Your task to perform on an android device: open device folders in google photos Image 0: 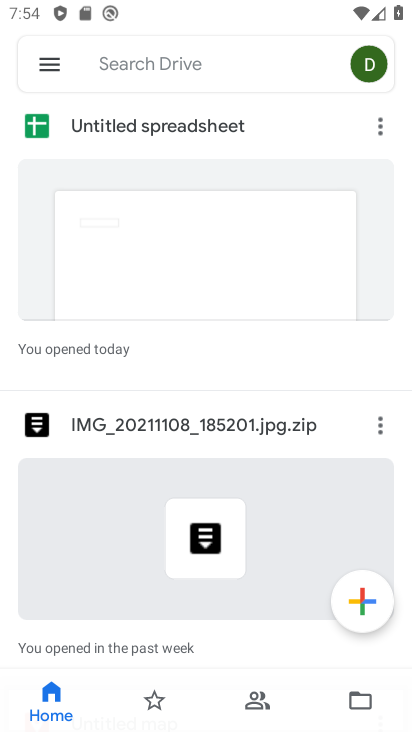
Step 0: press home button
Your task to perform on an android device: open device folders in google photos Image 1: 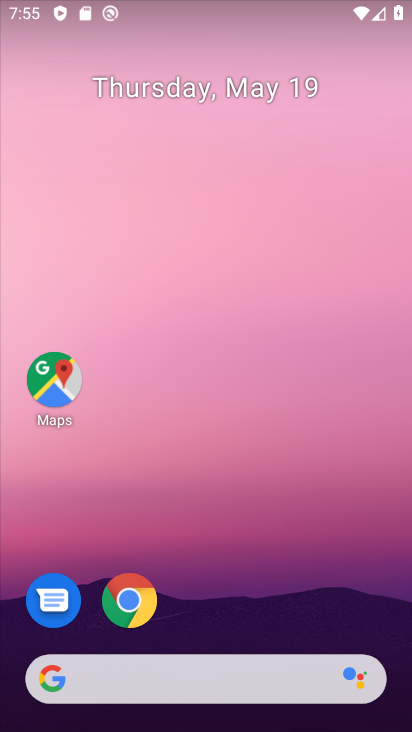
Step 1: drag from (251, 613) to (257, 147)
Your task to perform on an android device: open device folders in google photos Image 2: 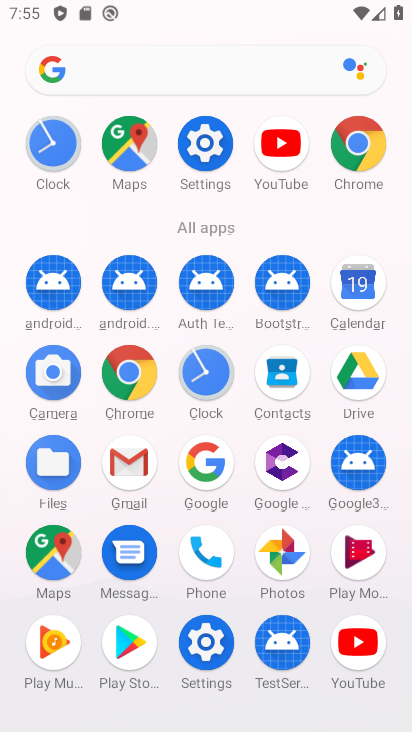
Step 2: click (269, 550)
Your task to perform on an android device: open device folders in google photos Image 3: 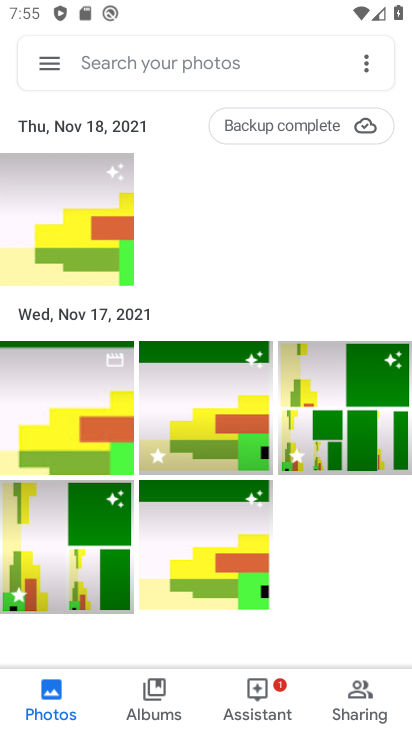
Step 3: click (43, 62)
Your task to perform on an android device: open device folders in google photos Image 4: 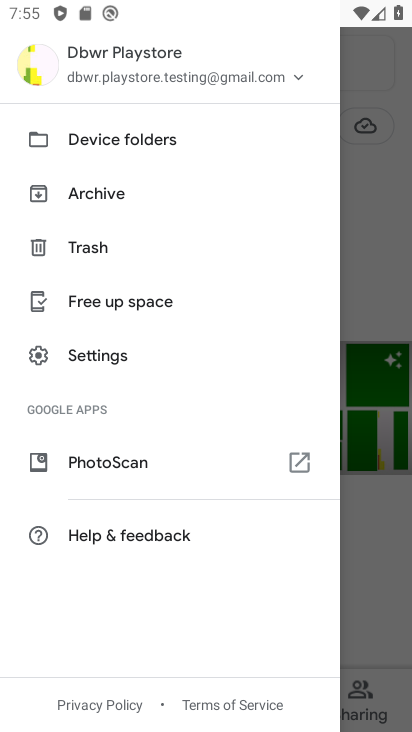
Step 4: click (95, 154)
Your task to perform on an android device: open device folders in google photos Image 5: 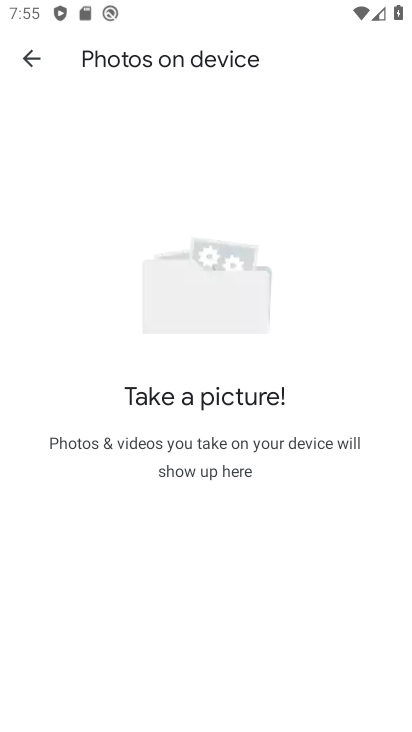
Step 5: task complete